Your task to perform on an android device: change the clock display to analog Image 0: 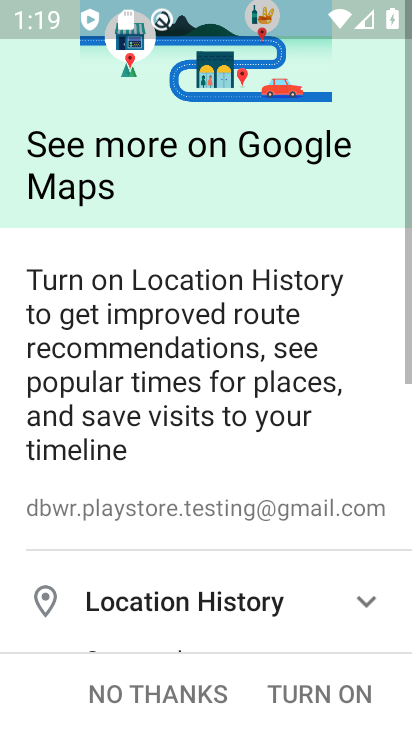
Step 0: press home button
Your task to perform on an android device: change the clock display to analog Image 1: 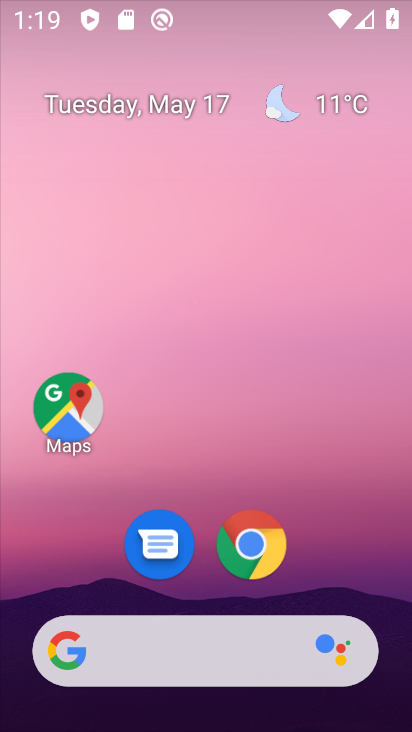
Step 1: drag from (364, 572) to (382, 38)
Your task to perform on an android device: change the clock display to analog Image 2: 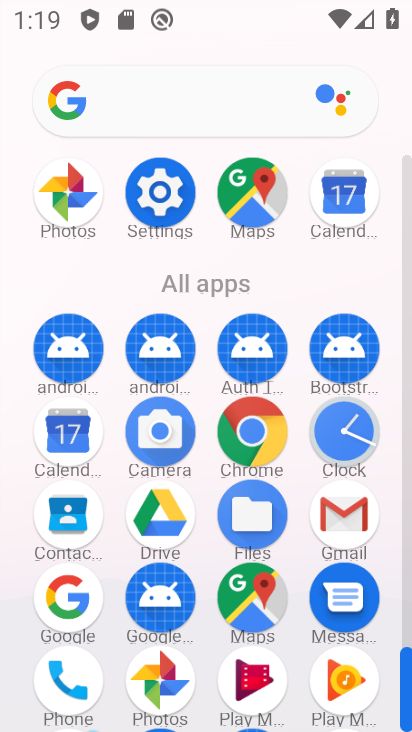
Step 2: click (365, 430)
Your task to perform on an android device: change the clock display to analog Image 3: 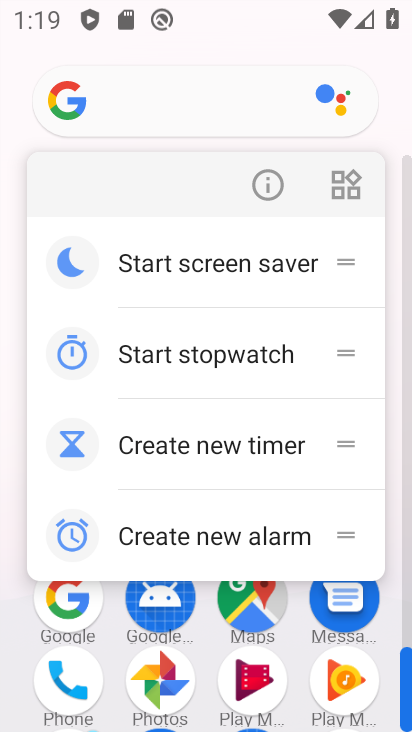
Step 3: click (290, 651)
Your task to perform on an android device: change the clock display to analog Image 4: 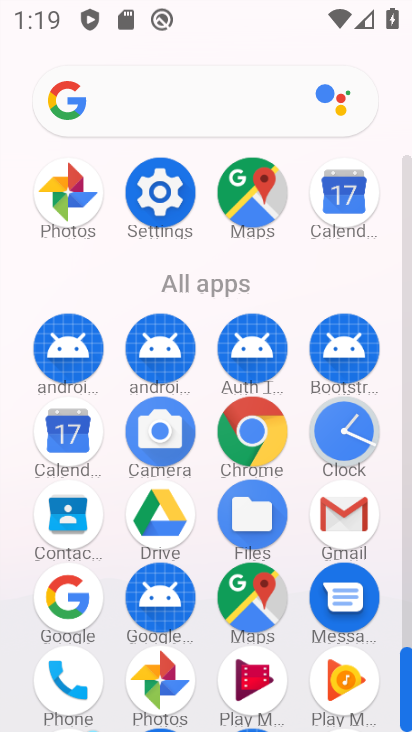
Step 4: click (350, 425)
Your task to perform on an android device: change the clock display to analog Image 5: 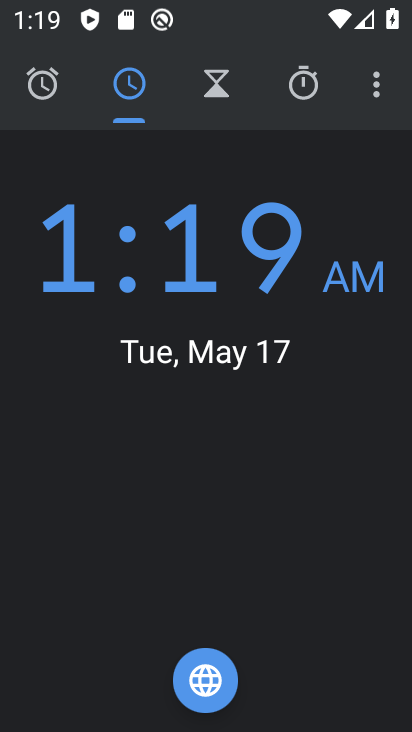
Step 5: click (383, 72)
Your task to perform on an android device: change the clock display to analog Image 6: 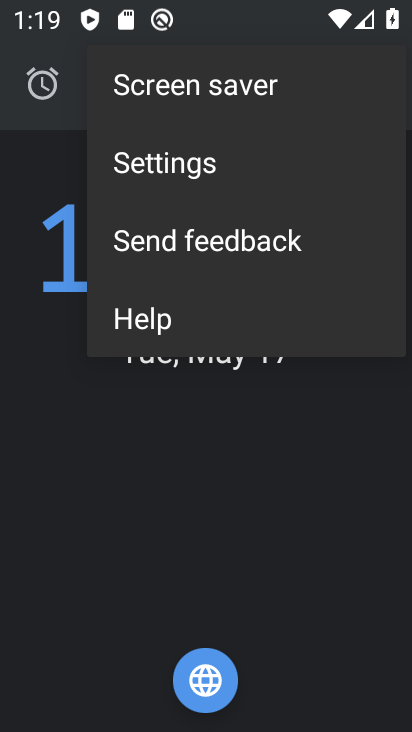
Step 6: click (287, 176)
Your task to perform on an android device: change the clock display to analog Image 7: 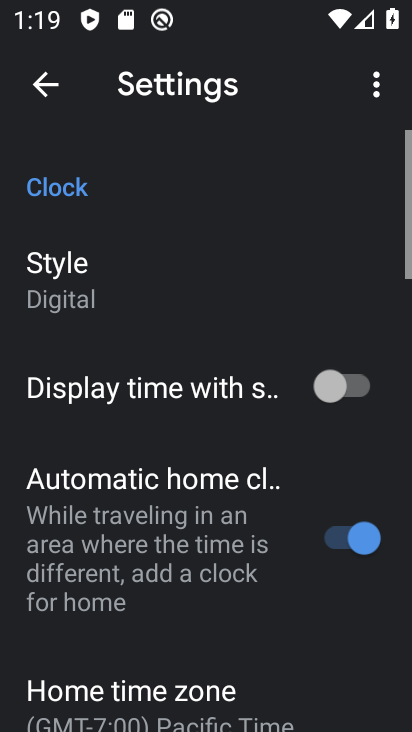
Step 7: click (84, 291)
Your task to perform on an android device: change the clock display to analog Image 8: 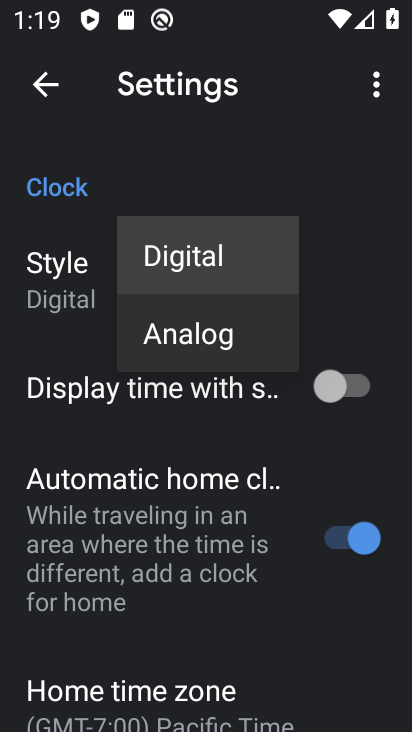
Step 8: click (159, 338)
Your task to perform on an android device: change the clock display to analog Image 9: 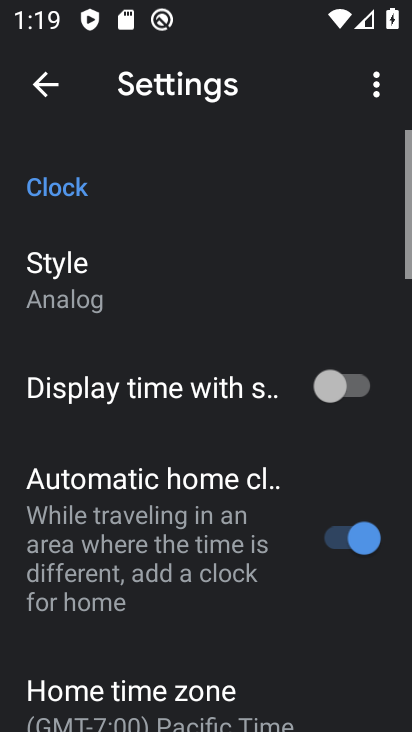
Step 9: task complete